Your task to perform on an android device: Open notification settings Image 0: 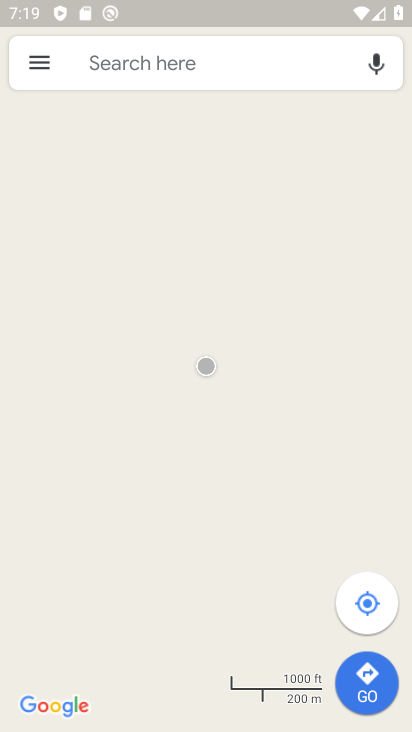
Step 0: drag from (201, 642) to (276, 81)
Your task to perform on an android device: Open notification settings Image 1: 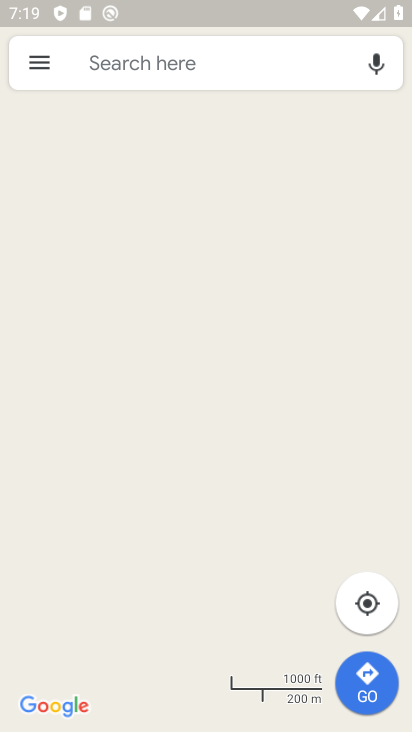
Step 1: press home button
Your task to perform on an android device: Open notification settings Image 2: 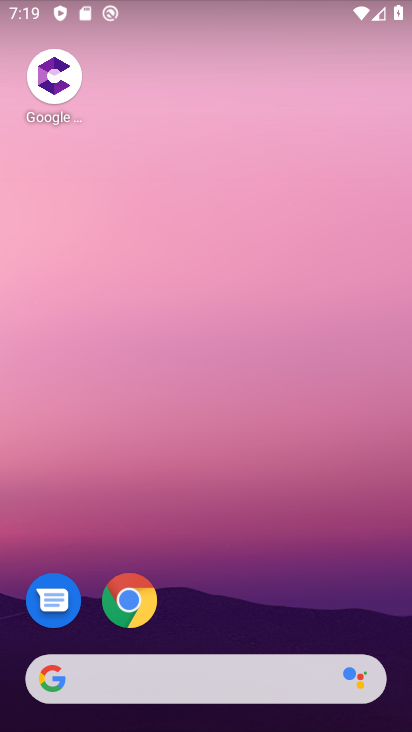
Step 2: drag from (240, 621) to (323, 65)
Your task to perform on an android device: Open notification settings Image 3: 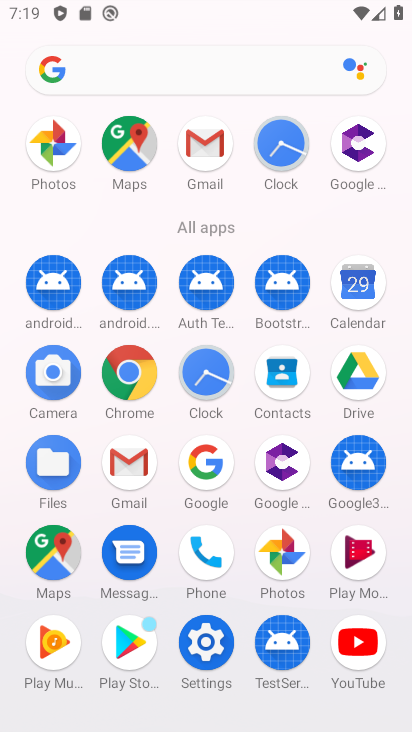
Step 3: click (205, 649)
Your task to perform on an android device: Open notification settings Image 4: 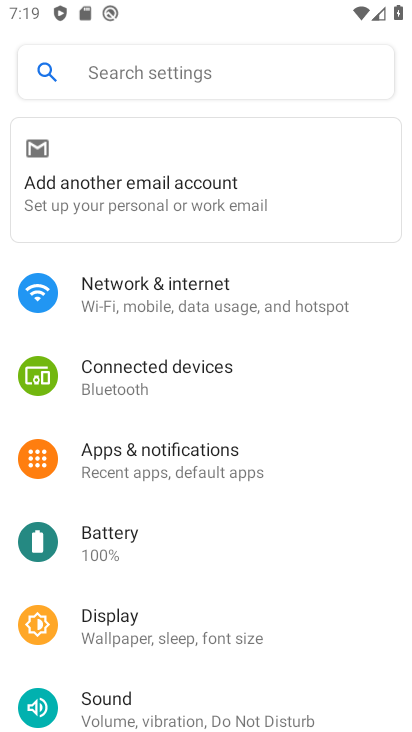
Step 4: click (212, 462)
Your task to perform on an android device: Open notification settings Image 5: 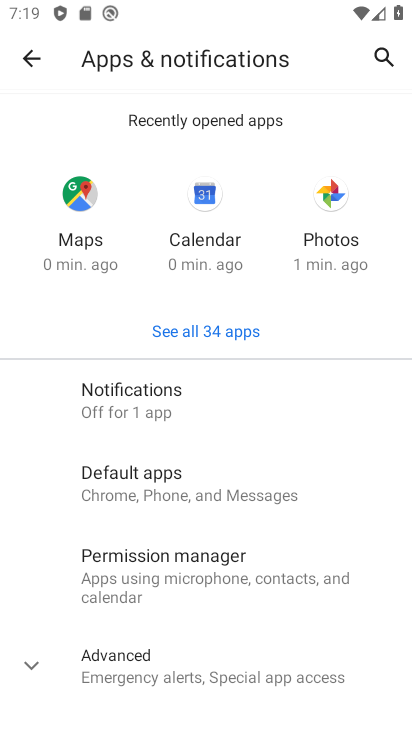
Step 5: click (158, 390)
Your task to perform on an android device: Open notification settings Image 6: 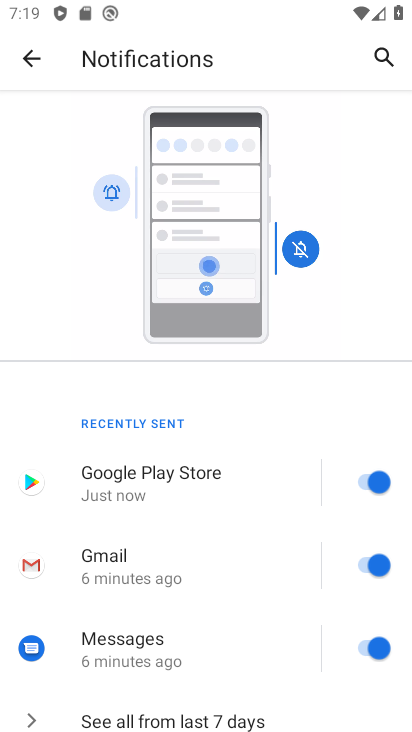
Step 6: task complete